Your task to perform on an android device: open chrome and create a bookmark for the current page Image 0: 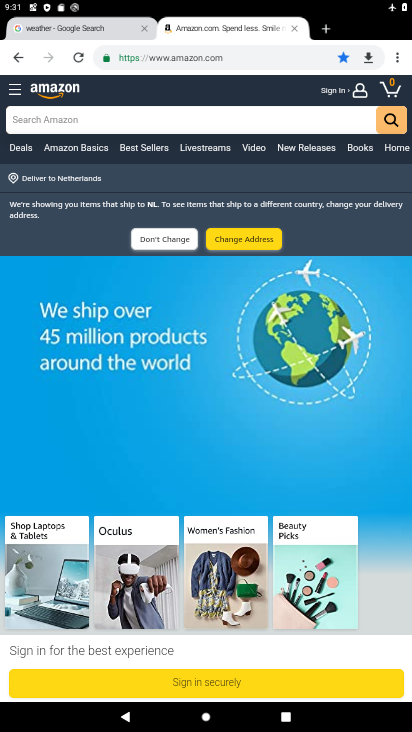
Step 0: press home button
Your task to perform on an android device: open chrome and create a bookmark for the current page Image 1: 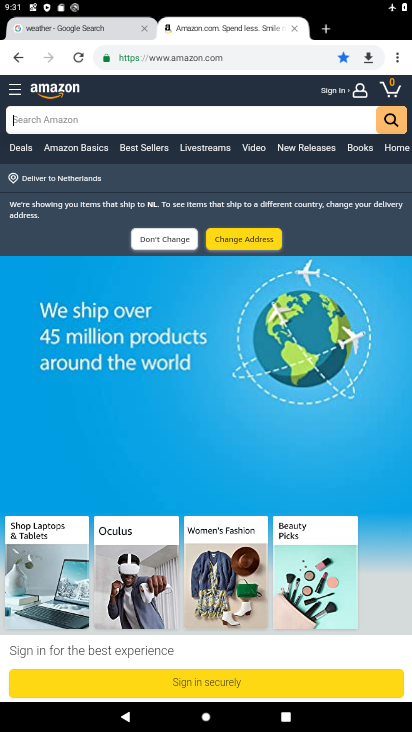
Step 1: press home button
Your task to perform on an android device: open chrome and create a bookmark for the current page Image 2: 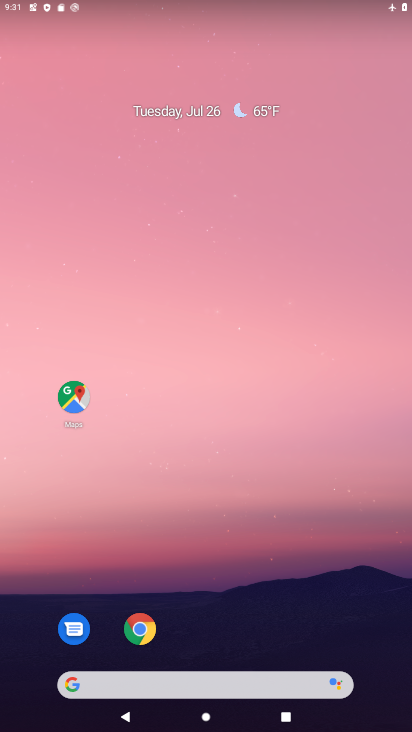
Step 2: drag from (248, 630) to (205, 20)
Your task to perform on an android device: open chrome and create a bookmark for the current page Image 3: 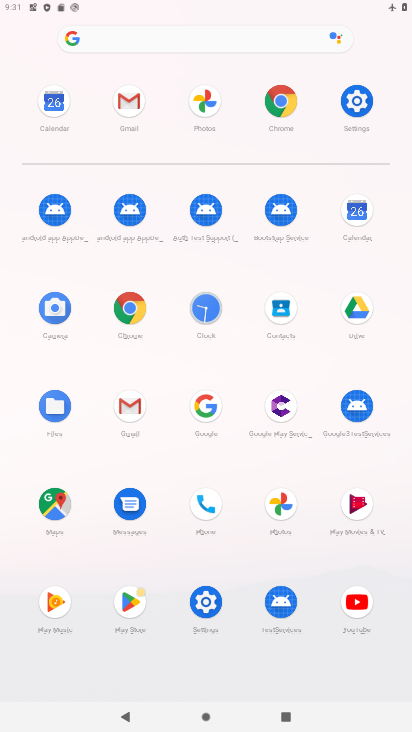
Step 3: click (276, 104)
Your task to perform on an android device: open chrome and create a bookmark for the current page Image 4: 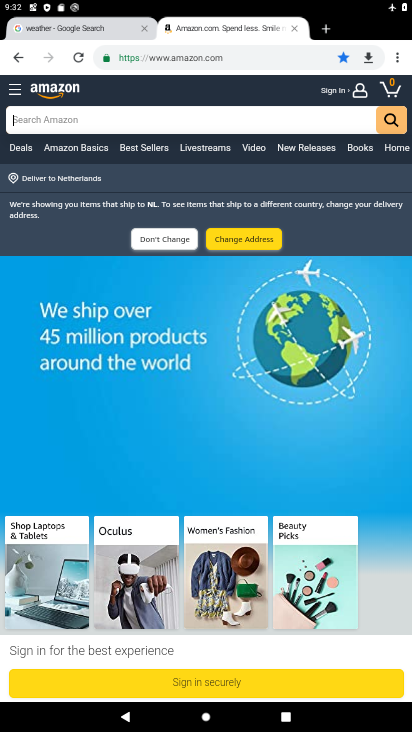
Step 4: task complete